Your task to perform on an android device: toggle data saver in the chrome app Image 0: 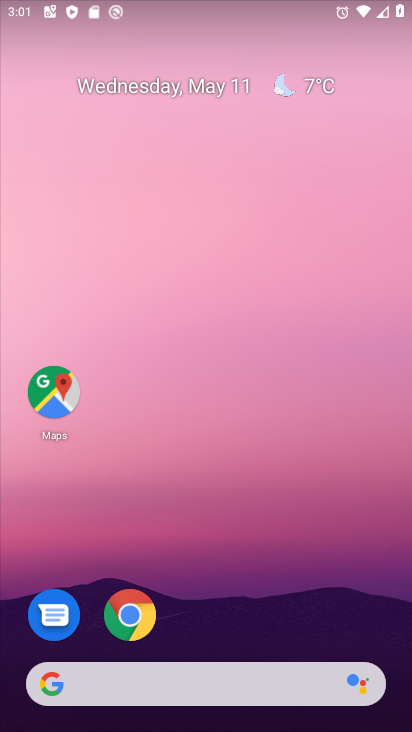
Step 0: click (125, 612)
Your task to perform on an android device: toggle data saver in the chrome app Image 1: 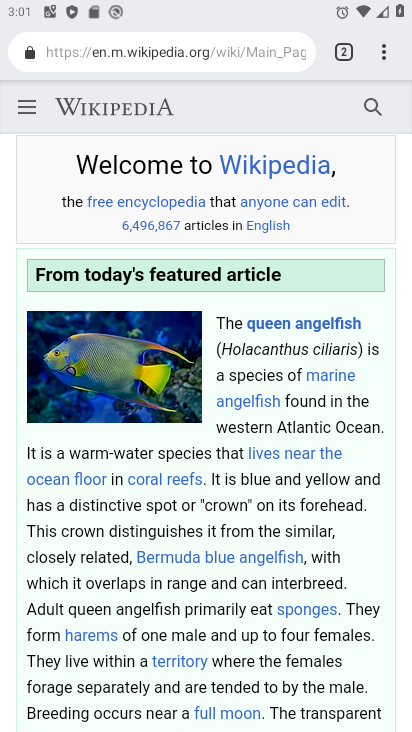
Step 1: drag from (386, 47) to (233, 626)
Your task to perform on an android device: toggle data saver in the chrome app Image 2: 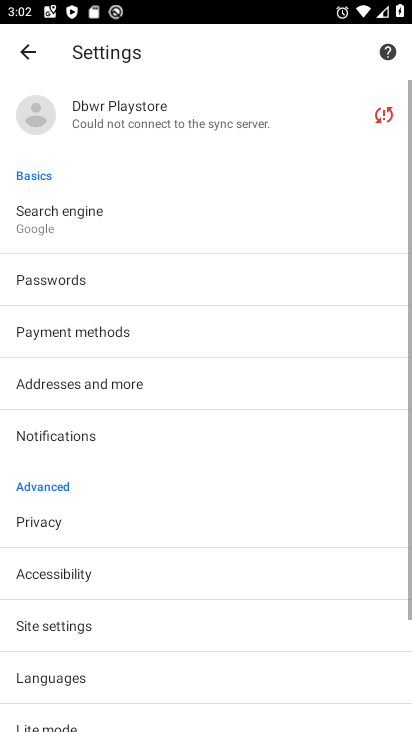
Step 2: drag from (232, 622) to (254, 6)
Your task to perform on an android device: toggle data saver in the chrome app Image 3: 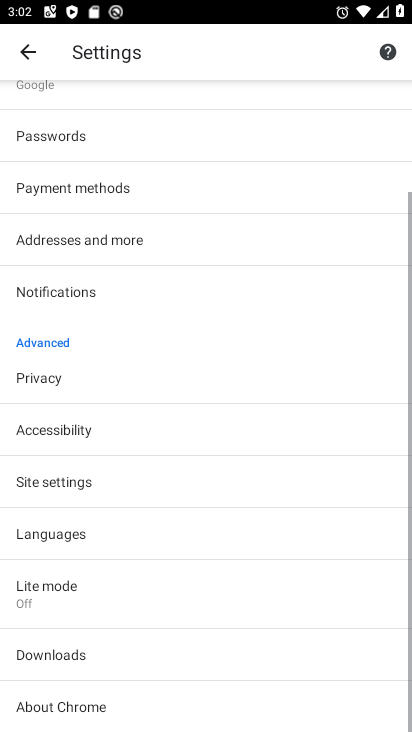
Step 3: click (99, 580)
Your task to perform on an android device: toggle data saver in the chrome app Image 4: 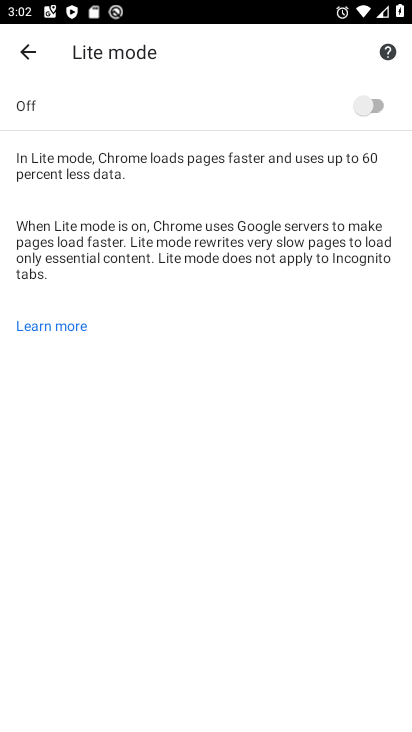
Step 4: click (371, 105)
Your task to perform on an android device: toggle data saver in the chrome app Image 5: 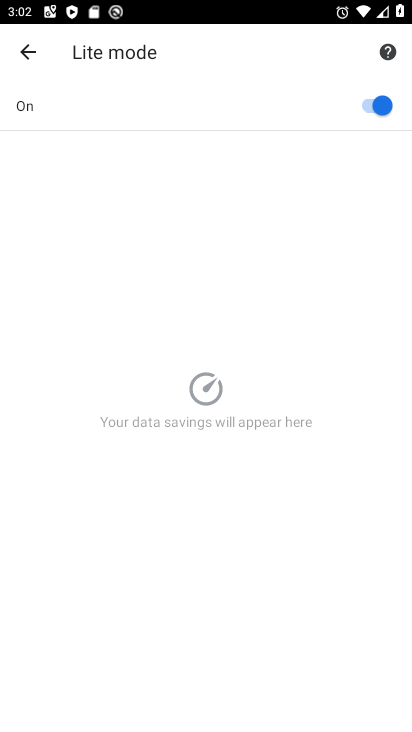
Step 5: task complete